Your task to perform on an android device: toggle show notifications on the lock screen Image 0: 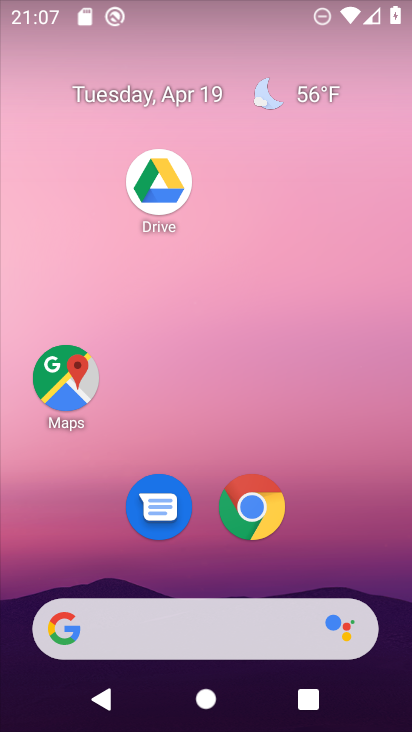
Step 0: drag from (359, 520) to (333, 131)
Your task to perform on an android device: toggle show notifications on the lock screen Image 1: 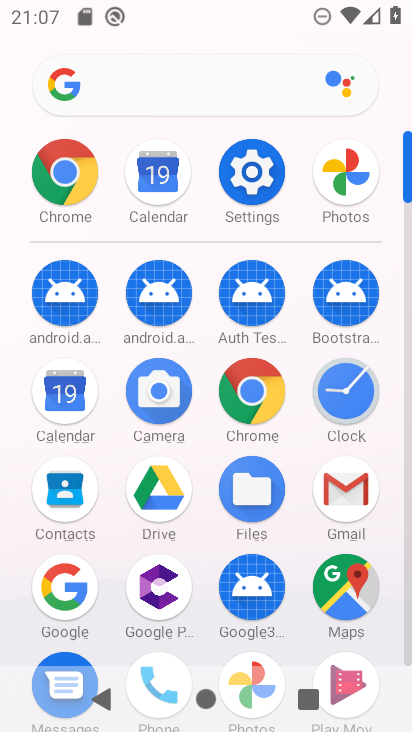
Step 1: click (269, 177)
Your task to perform on an android device: toggle show notifications on the lock screen Image 2: 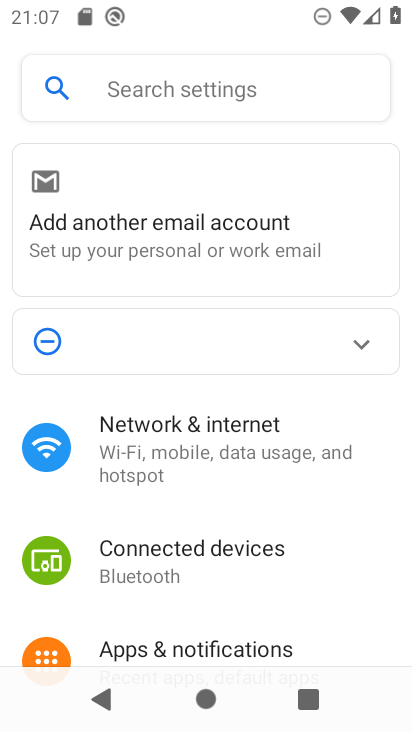
Step 2: drag from (263, 578) to (221, 209)
Your task to perform on an android device: toggle show notifications on the lock screen Image 3: 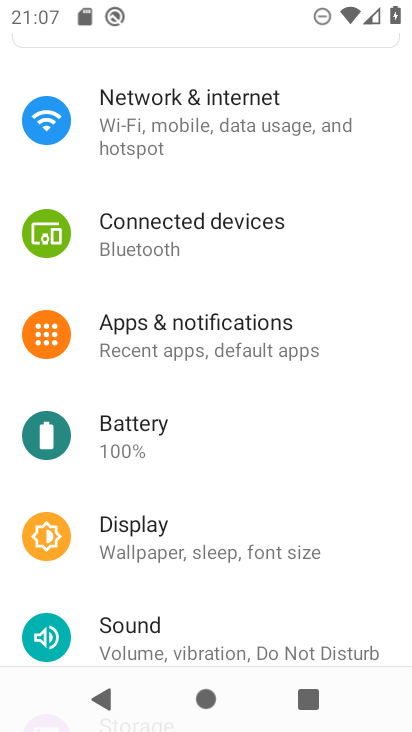
Step 3: click (201, 332)
Your task to perform on an android device: toggle show notifications on the lock screen Image 4: 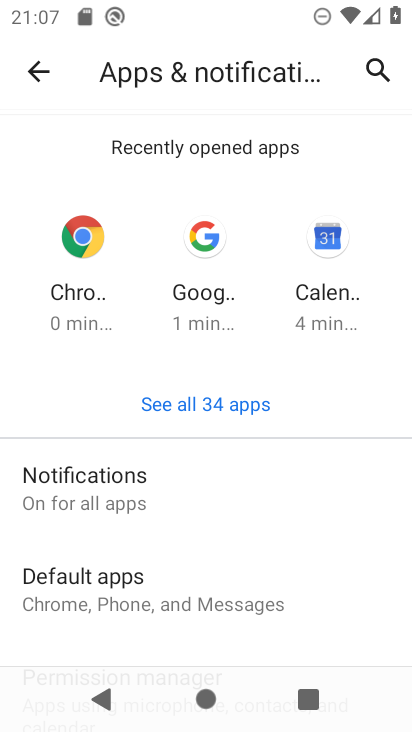
Step 4: click (204, 489)
Your task to perform on an android device: toggle show notifications on the lock screen Image 5: 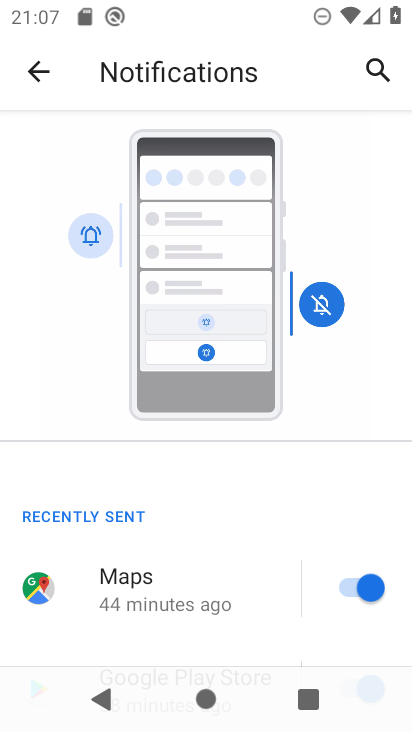
Step 5: drag from (235, 537) to (205, 229)
Your task to perform on an android device: toggle show notifications on the lock screen Image 6: 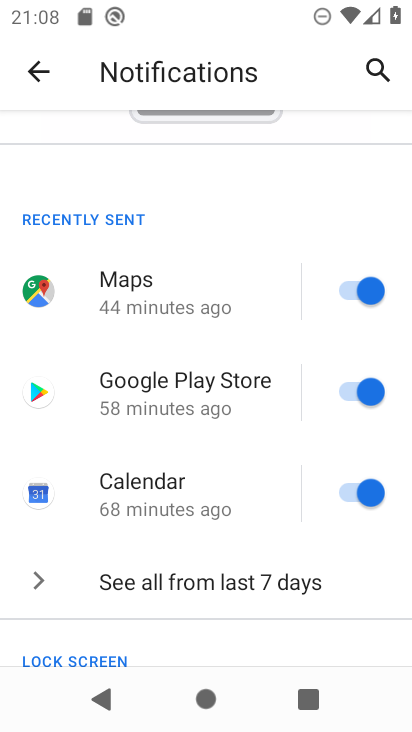
Step 6: drag from (227, 519) to (194, 283)
Your task to perform on an android device: toggle show notifications on the lock screen Image 7: 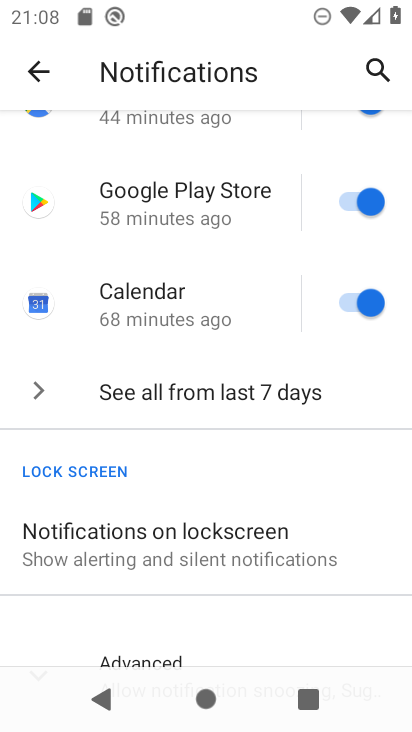
Step 7: click (245, 543)
Your task to perform on an android device: toggle show notifications on the lock screen Image 8: 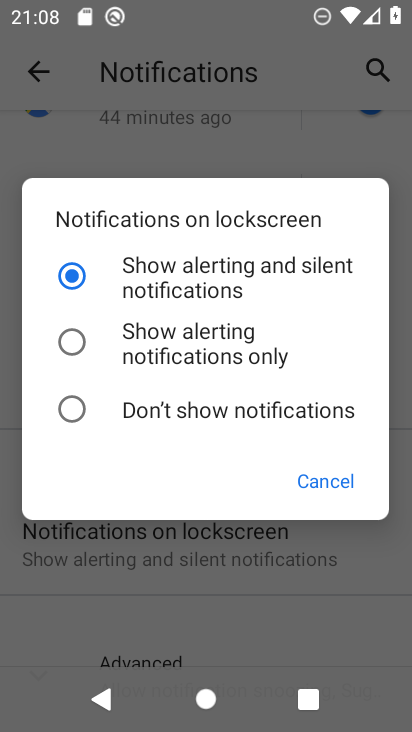
Step 8: click (60, 395)
Your task to perform on an android device: toggle show notifications on the lock screen Image 9: 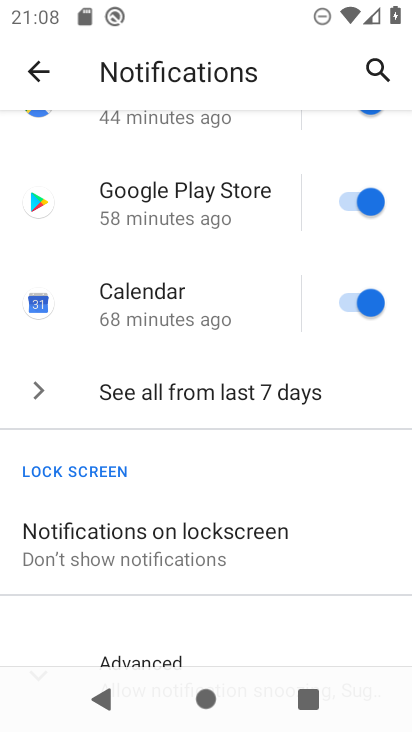
Step 9: task complete